Your task to perform on an android device: change your default location settings in chrome Image 0: 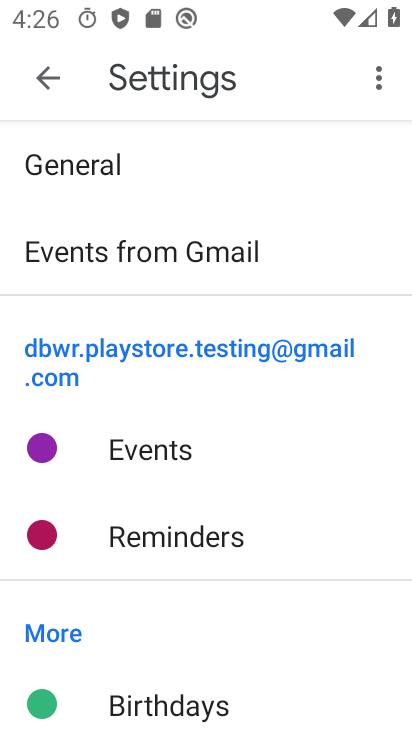
Step 0: press home button
Your task to perform on an android device: change your default location settings in chrome Image 1: 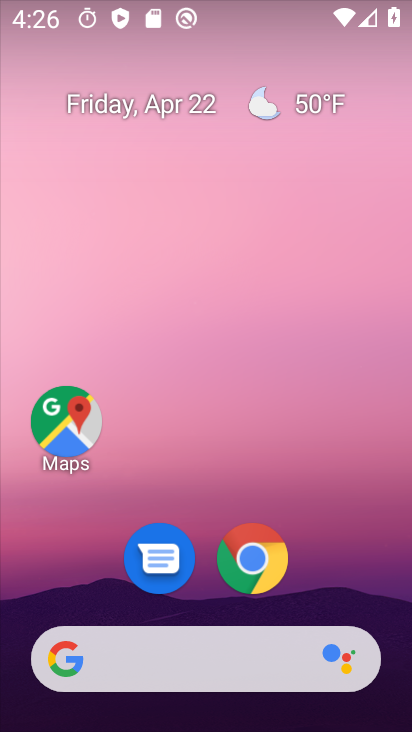
Step 1: drag from (321, 595) to (250, 183)
Your task to perform on an android device: change your default location settings in chrome Image 2: 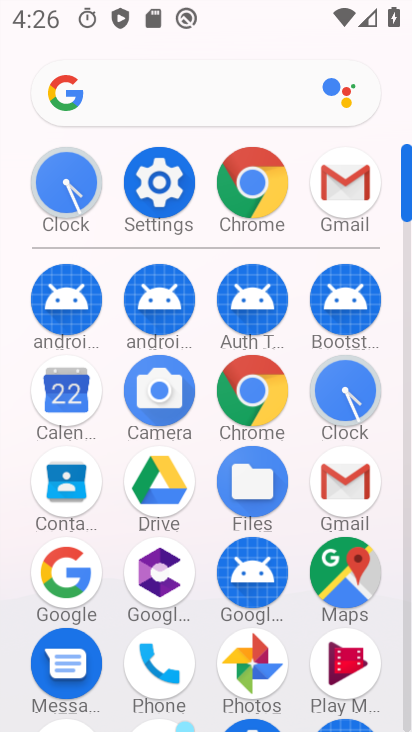
Step 2: drag from (209, 633) to (236, 344)
Your task to perform on an android device: change your default location settings in chrome Image 3: 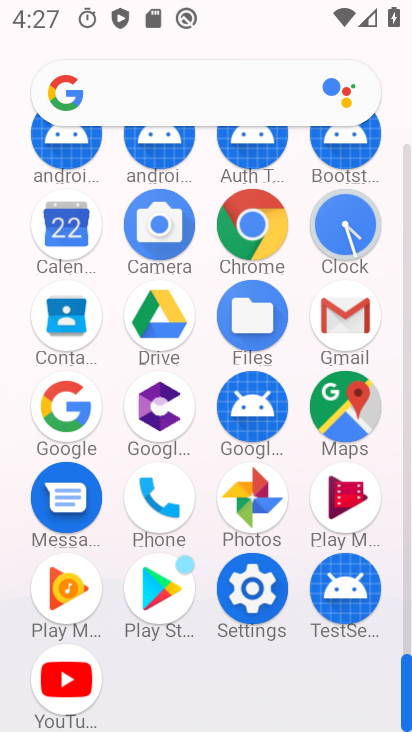
Step 3: drag from (185, 293) to (191, 605)
Your task to perform on an android device: change your default location settings in chrome Image 4: 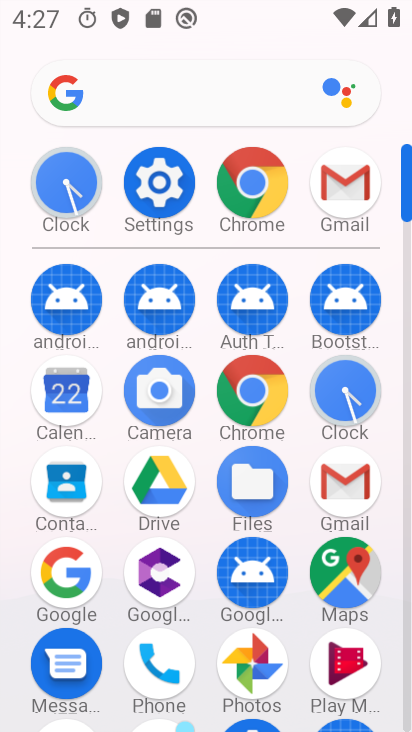
Step 4: click (275, 406)
Your task to perform on an android device: change your default location settings in chrome Image 5: 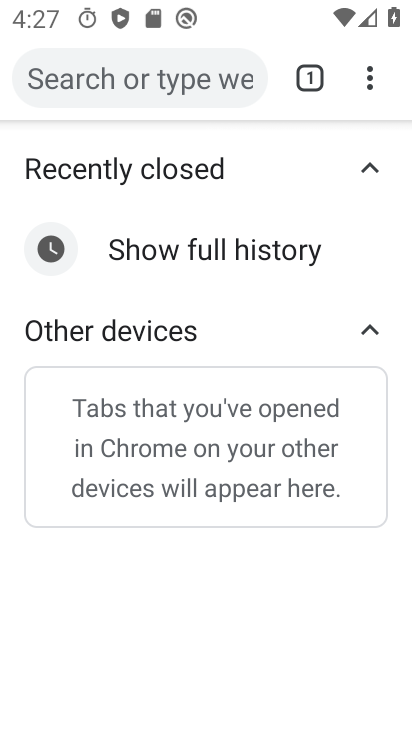
Step 5: click (370, 83)
Your task to perform on an android device: change your default location settings in chrome Image 6: 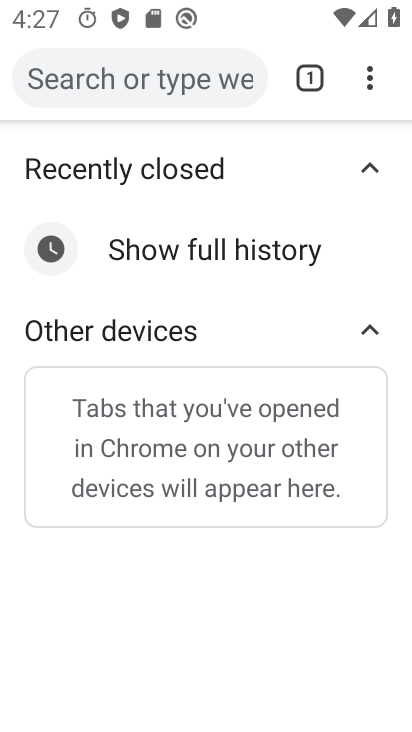
Step 6: click (370, 83)
Your task to perform on an android device: change your default location settings in chrome Image 7: 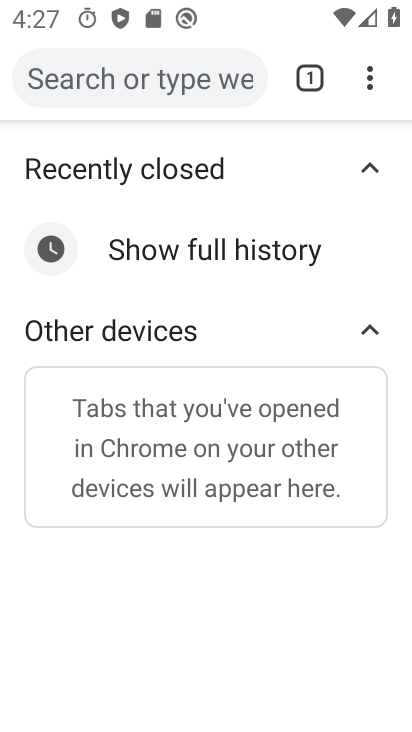
Step 7: click (371, 78)
Your task to perform on an android device: change your default location settings in chrome Image 8: 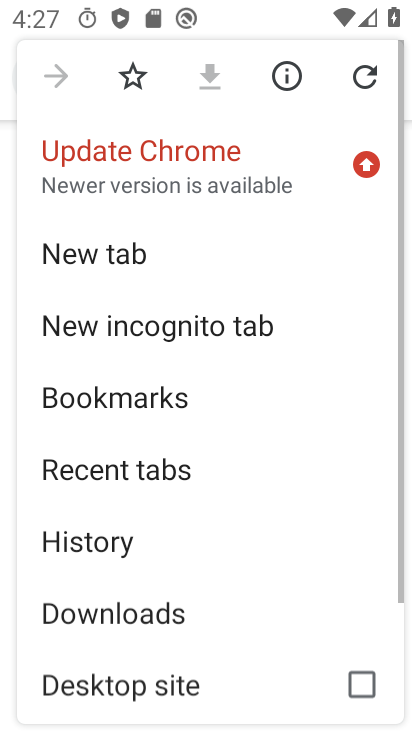
Step 8: click (371, 78)
Your task to perform on an android device: change your default location settings in chrome Image 9: 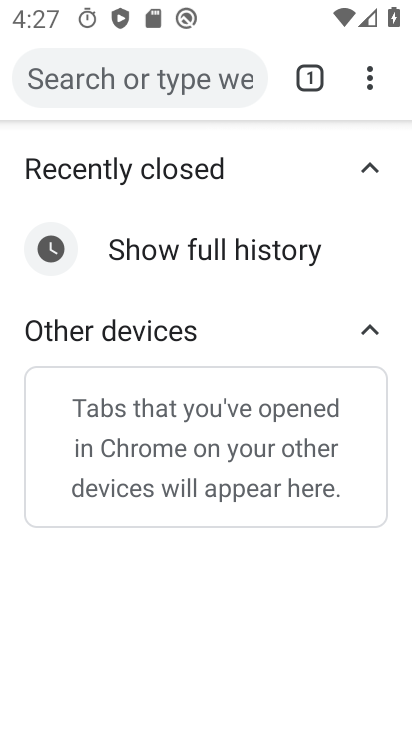
Step 9: click (371, 78)
Your task to perform on an android device: change your default location settings in chrome Image 10: 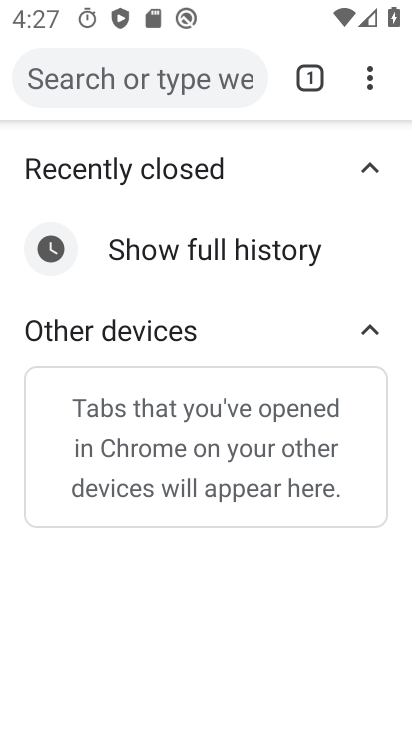
Step 10: click (370, 74)
Your task to perform on an android device: change your default location settings in chrome Image 11: 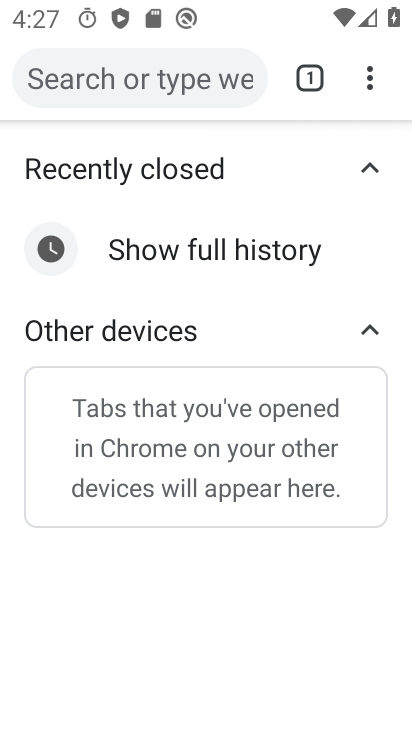
Step 11: click (370, 75)
Your task to perform on an android device: change your default location settings in chrome Image 12: 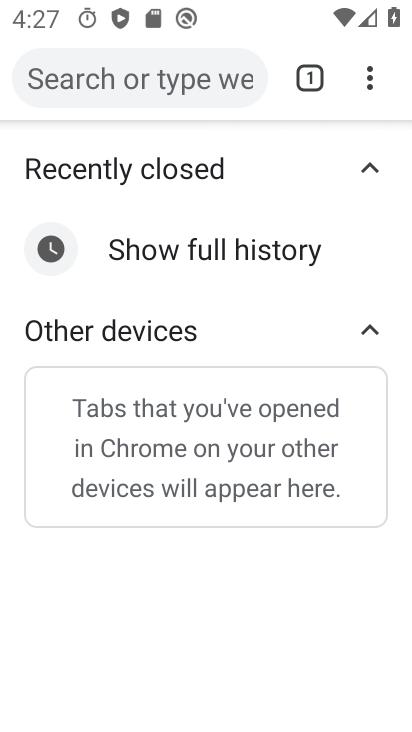
Step 12: click (369, 81)
Your task to perform on an android device: change your default location settings in chrome Image 13: 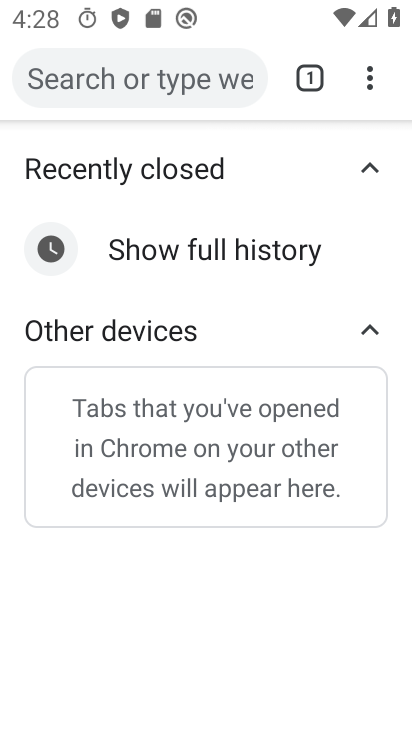
Step 13: click (369, 81)
Your task to perform on an android device: change your default location settings in chrome Image 14: 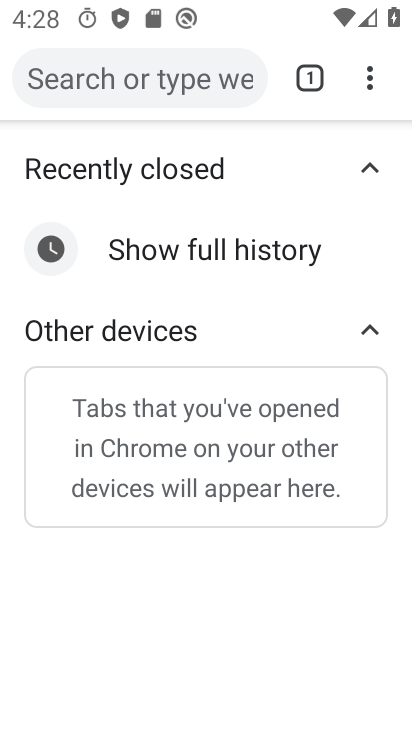
Step 14: click (355, 87)
Your task to perform on an android device: change your default location settings in chrome Image 15: 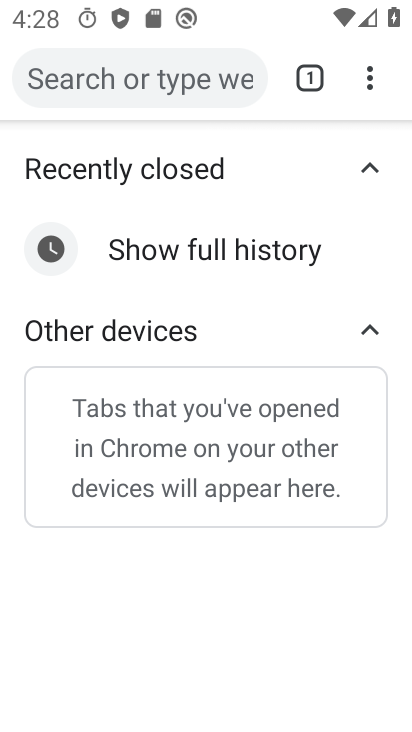
Step 15: click (369, 80)
Your task to perform on an android device: change your default location settings in chrome Image 16: 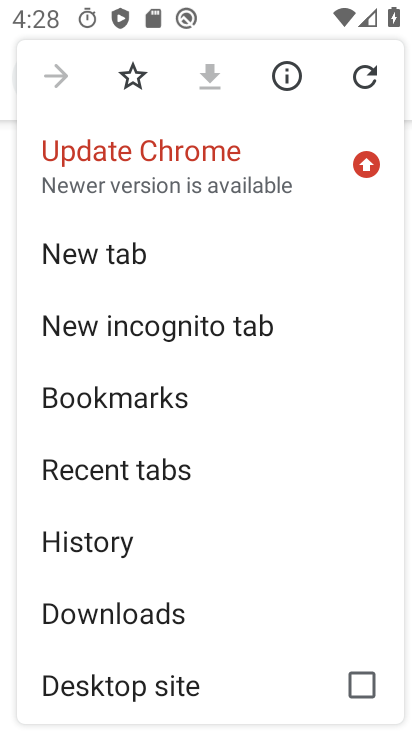
Step 16: drag from (178, 600) to (200, 365)
Your task to perform on an android device: change your default location settings in chrome Image 17: 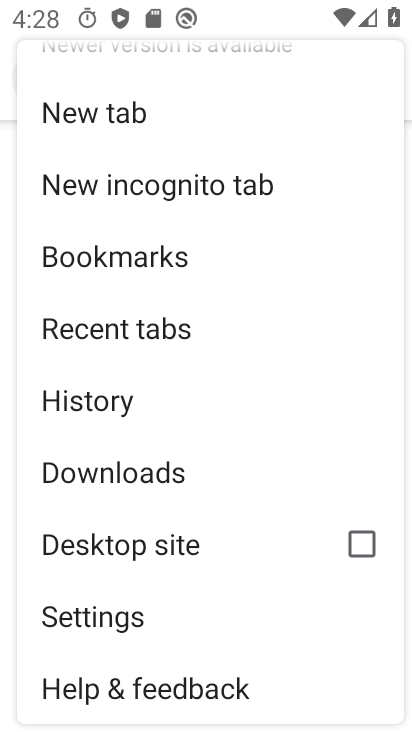
Step 17: click (107, 620)
Your task to perform on an android device: change your default location settings in chrome Image 18: 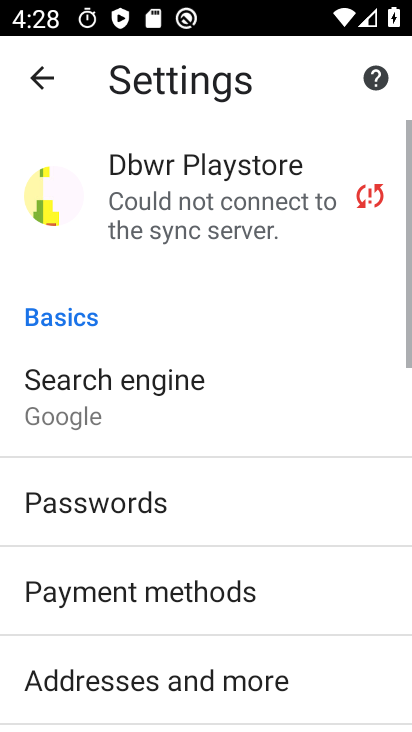
Step 18: drag from (172, 602) to (289, 304)
Your task to perform on an android device: change your default location settings in chrome Image 19: 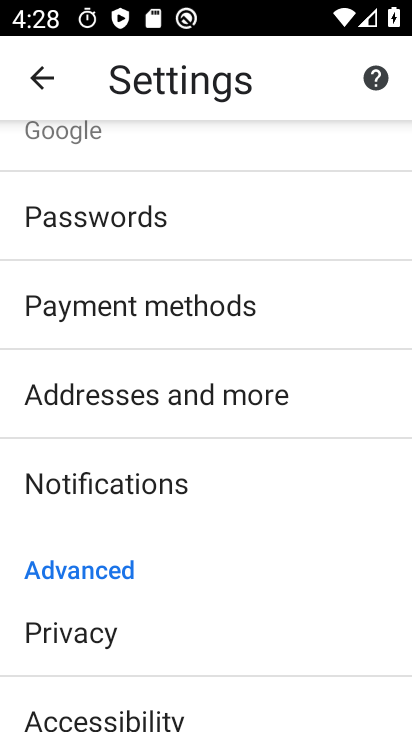
Step 19: drag from (189, 629) to (224, 320)
Your task to perform on an android device: change your default location settings in chrome Image 20: 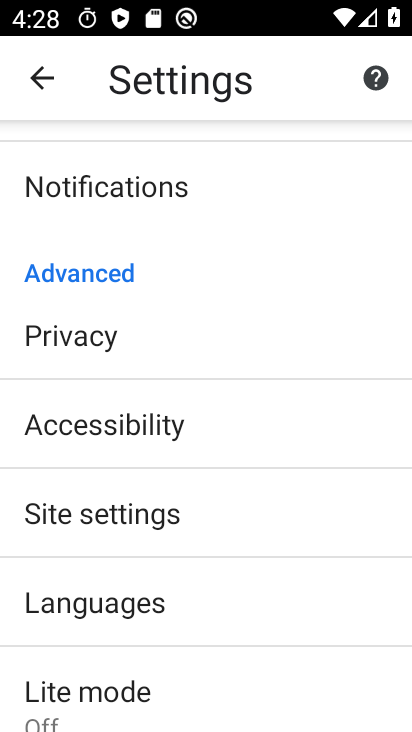
Step 20: click (118, 530)
Your task to perform on an android device: change your default location settings in chrome Image 21: 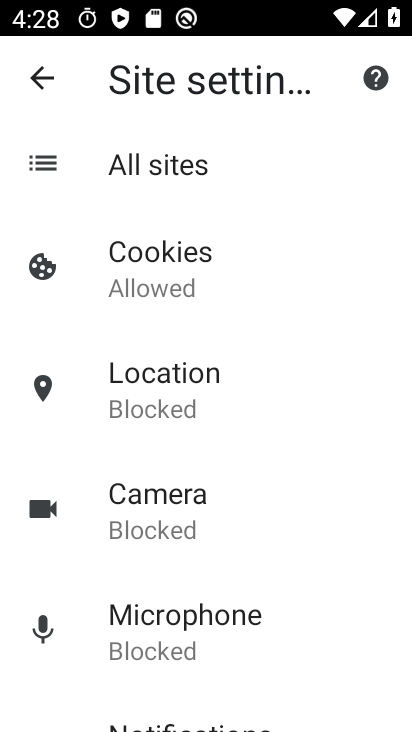
Step 21: drag from (225, 642) to (236, 301)
Your task to perform on an android device: change your default location settings in chrome Image 22: 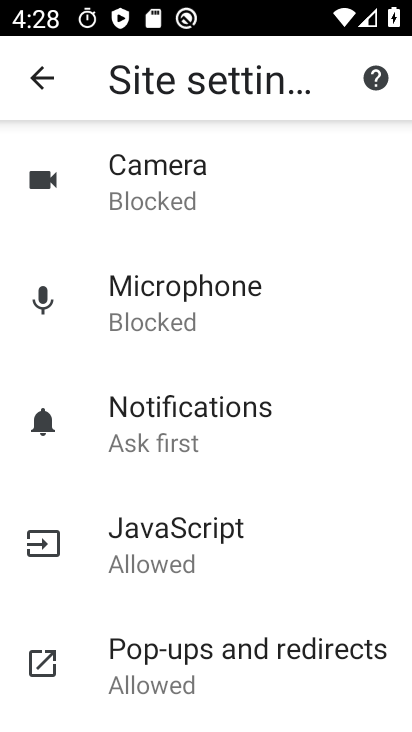
Step 22: drag from (197, 631) to (221, 340)
Your task to perform on an android device: change your default location settings in chrome Image 23: 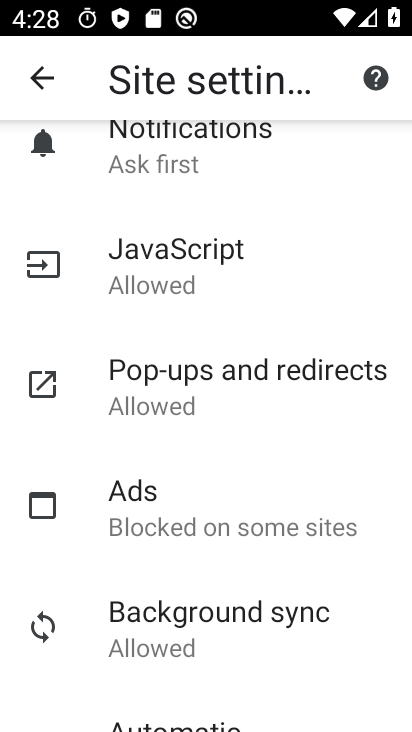
Step 23: drag from (217, 618) to (279, 326)
Your task to perform on an android device: change your default location settings in chrome Image 24: 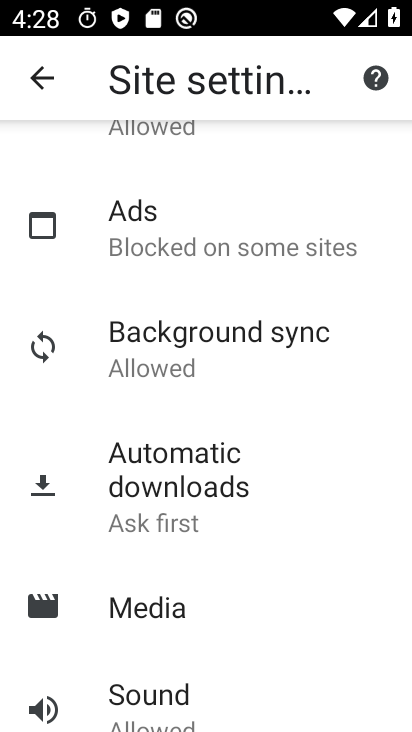
Step 24: drag from (218, 602) to (269, 305)
Your task to perform on an android device: change your default location settings in chrome Image 25: 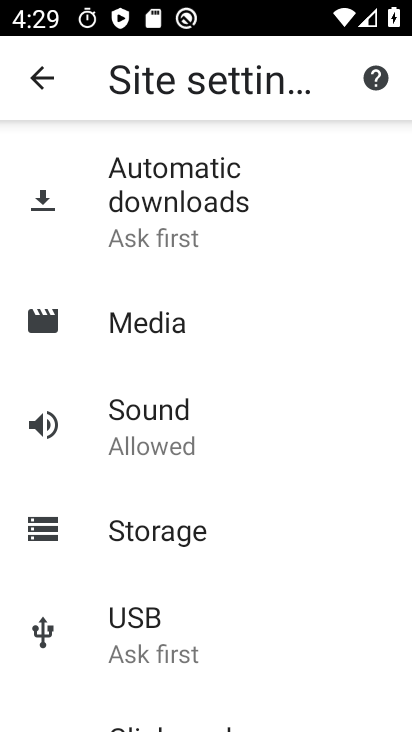
Step 25: drag from (267, 312) to (228, 626)
Your task to perform on an android device: change your default location settings in chrome Image 26: 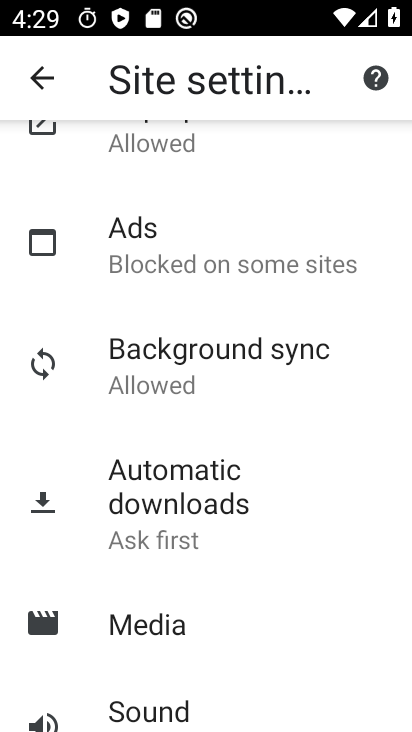
Step 26: drag from (295, 287) to (198, 655)
Your task to perform on an android device: change your default location settings in chrome Image 27: 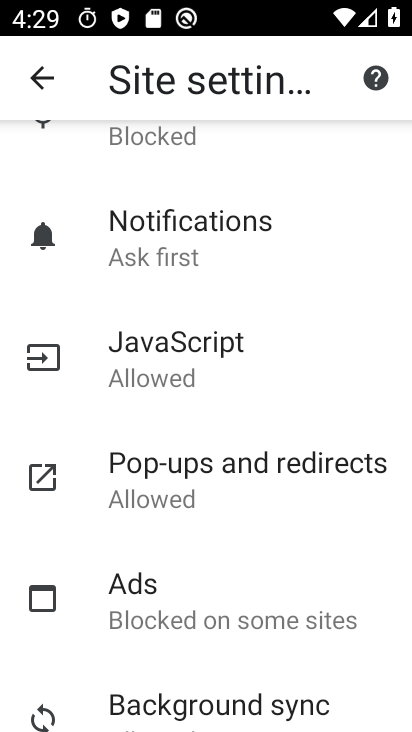
Step 27: drag from (286, 357) to (210, 672)
Your task to perform on an android device: change your default location settings in chrome Image 28: 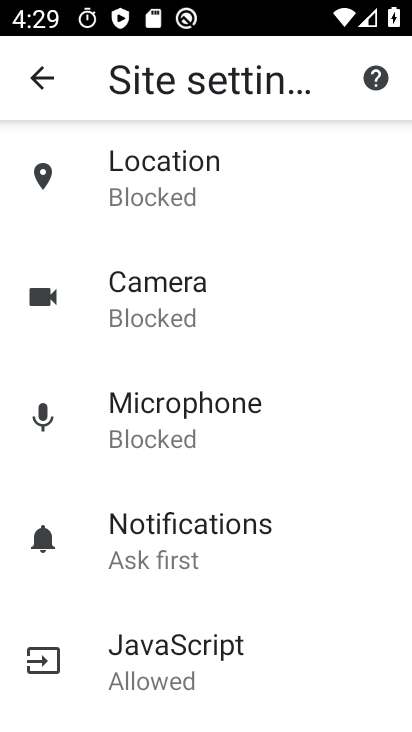
Step 28: drag from (290, 367) to (269, 561)
Your task to perform on an android device: change your default location settings in chrome Image 29: 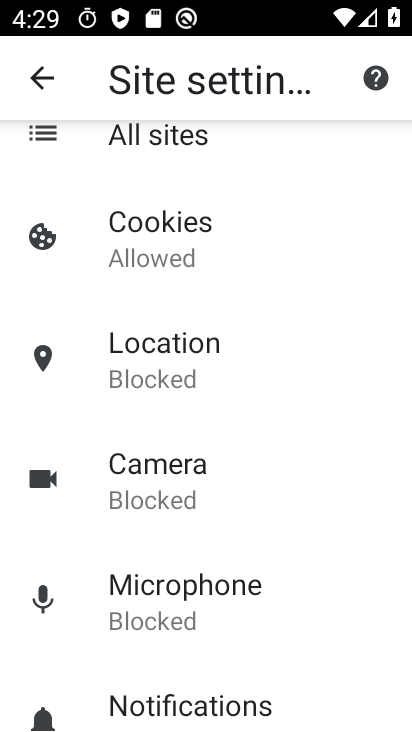
Step 29: click (179, 349)
Your task to perform on an android device: change your default location settings in chrome Image 30: 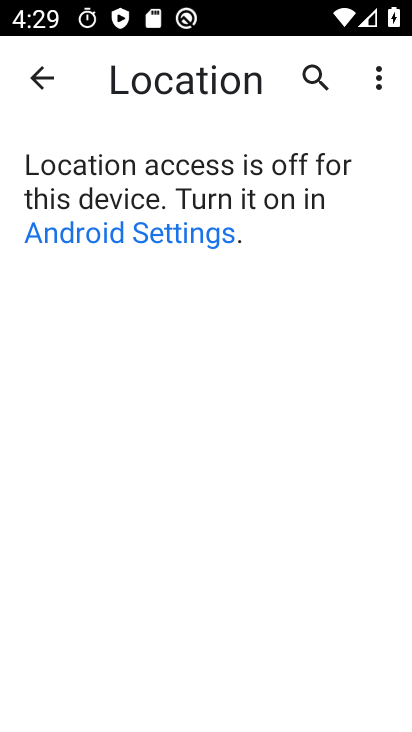
Step 30: click (183, 237)
Your task to perform on an android device: change your default location settings in chrome Image 31: 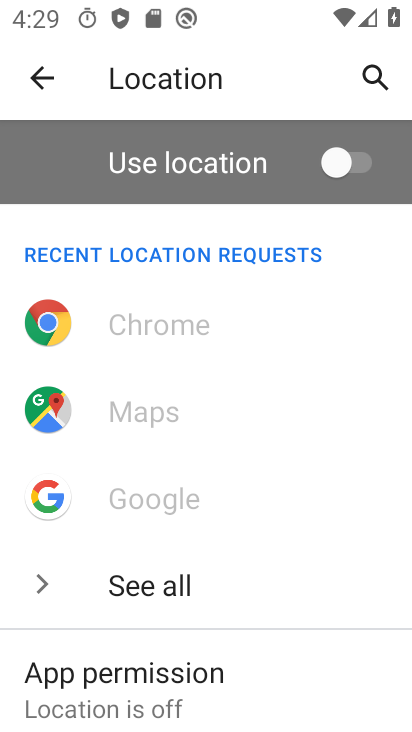
Step 31: click (360, 163)
Your task to perform on an android device: change your default location settings in chrome Image 32: 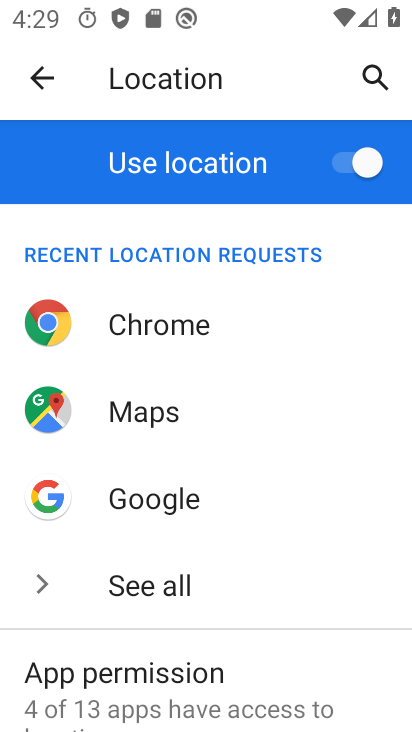
Step 32: task complete